Your task to perform on an android device: open chrome privacy settings Image 0: 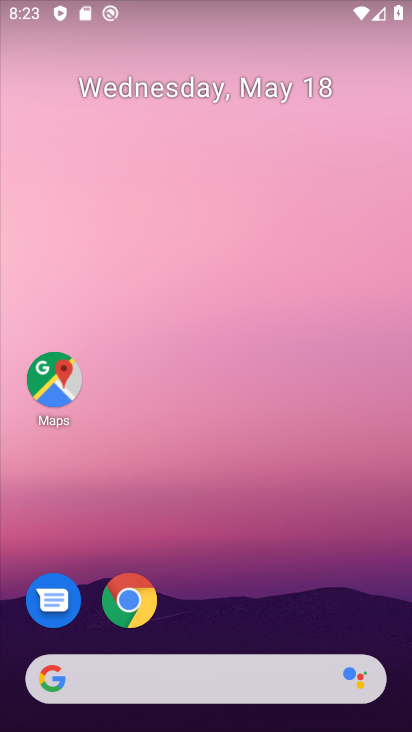
Step 0: click (150, 606)
Your task to perform on an android device: open chrome privacy settings Image 1: 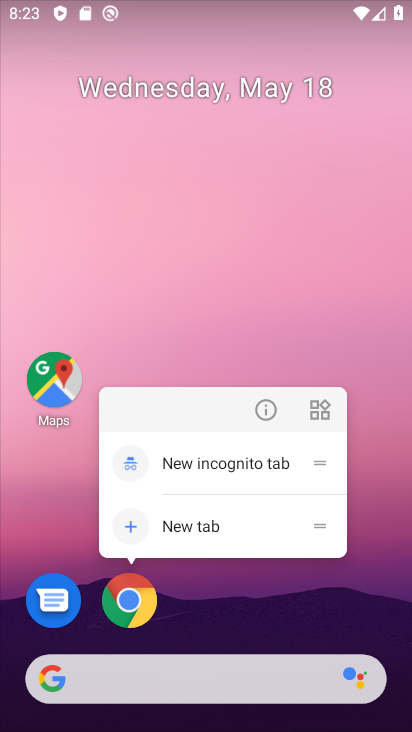
Step 1: click (130, 611)
Your task to perform on an android device: open chrome privacy settings Image 2: 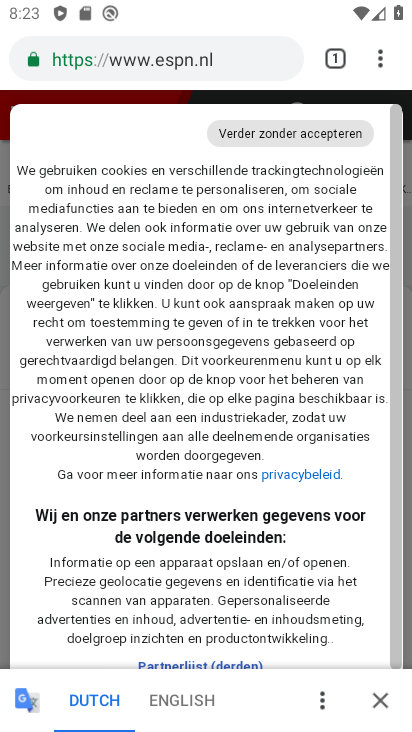
Step 2: click (371, 67)
Your task to perform on an android device: open chrome privacy settings Image 3: 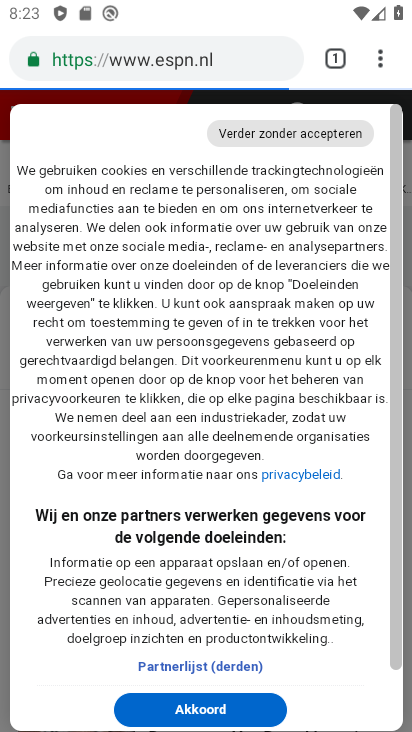
Step 3: click (376, 64)
Your task to perform on an android device: open chrome privacy settings Image 4: 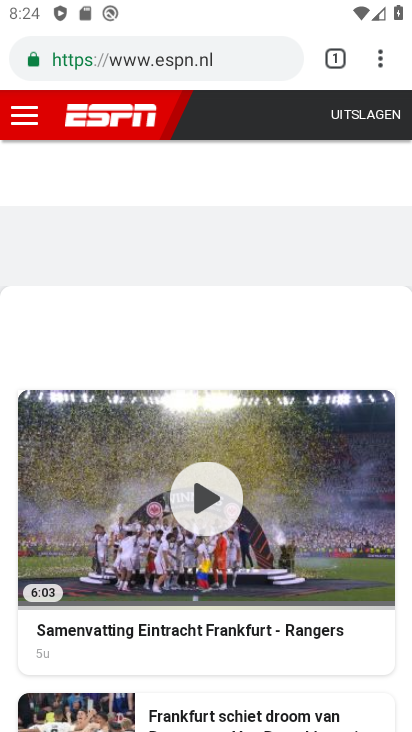
Step 4: click (379, 59)
Your task to perform on an android device: open chrome privacy settings Image 5: 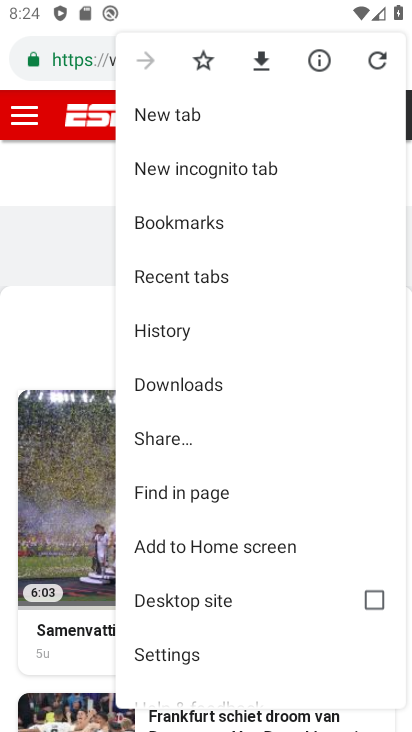
Step 5: click (220, 635)
Your task to perform on an android device: open chrome privacy settings Image 6: 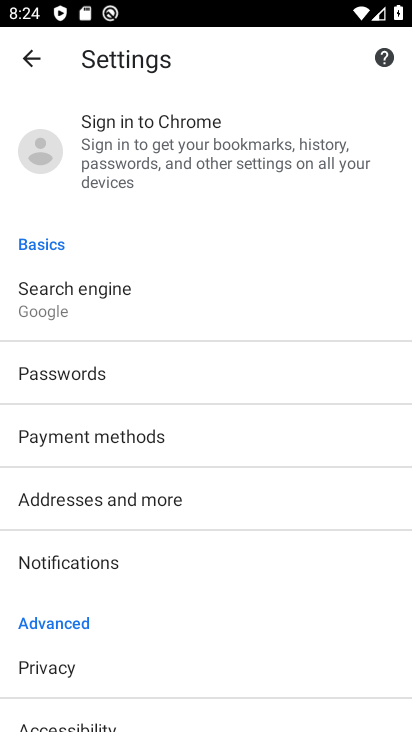
Step 6: task complete